Your task to perform on an android device: open app "Google Translate" Image 0: 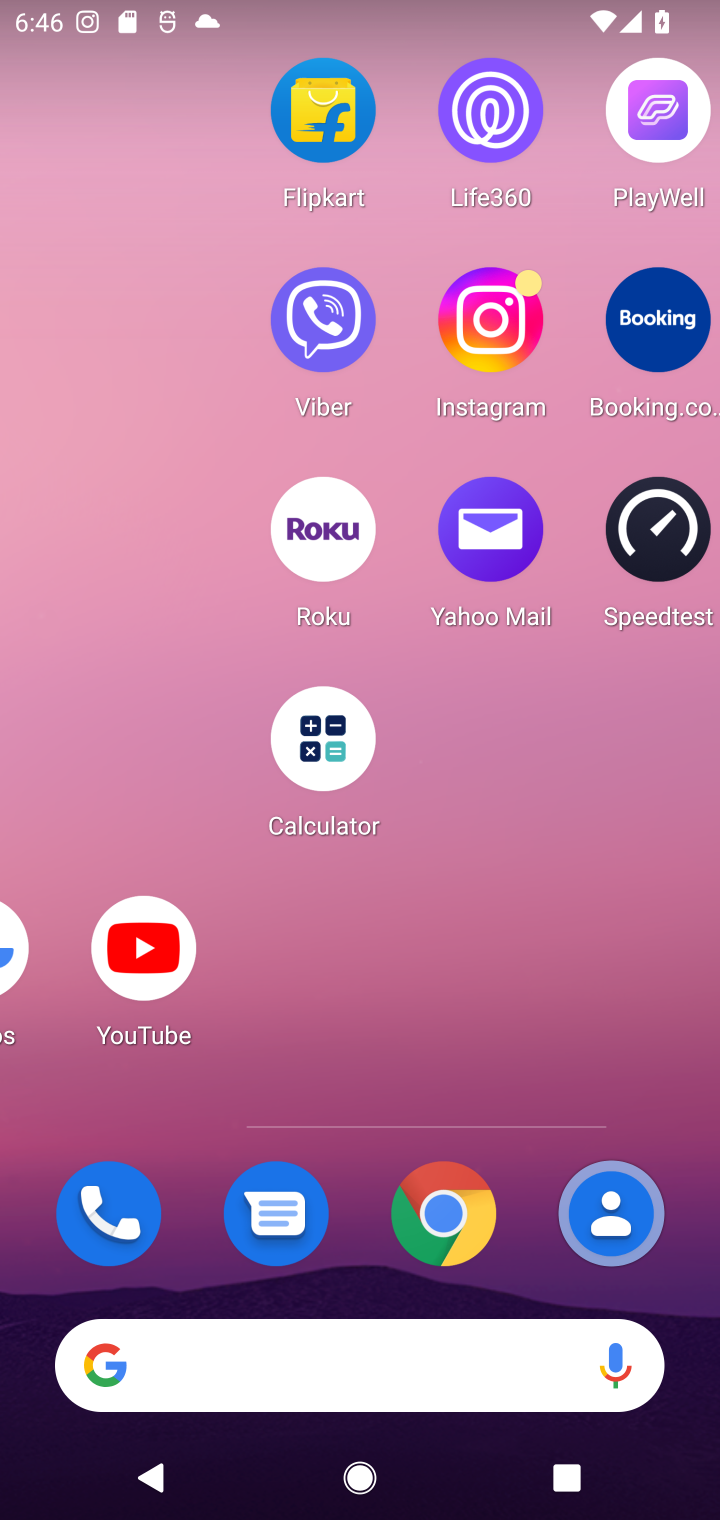
Step 0: press home button
Your task to perform on an android device: open app "Google Translate" Image 1: 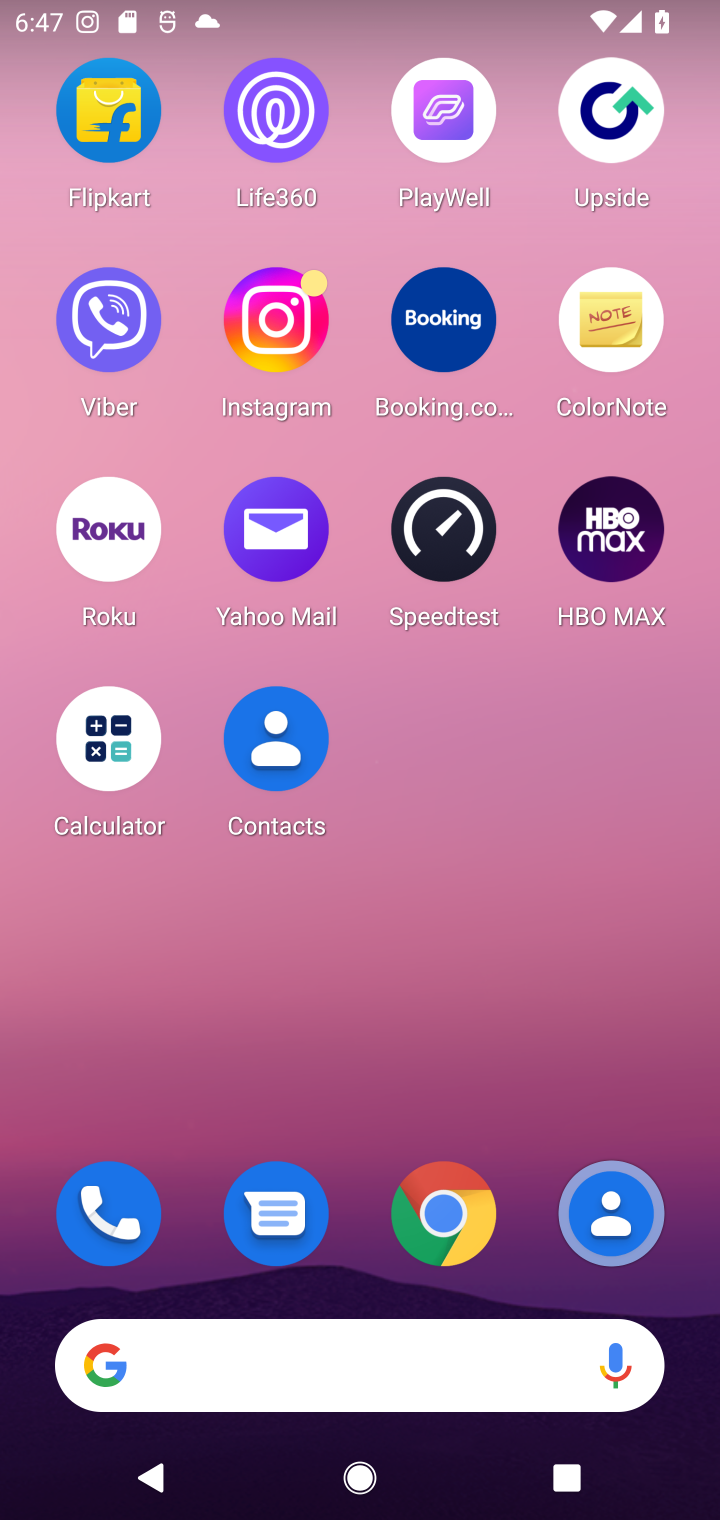
Step 1: drag from (344, 1143) to (342, 7)
Your task to perform on an android device: open app "Google Translate" Image 2: 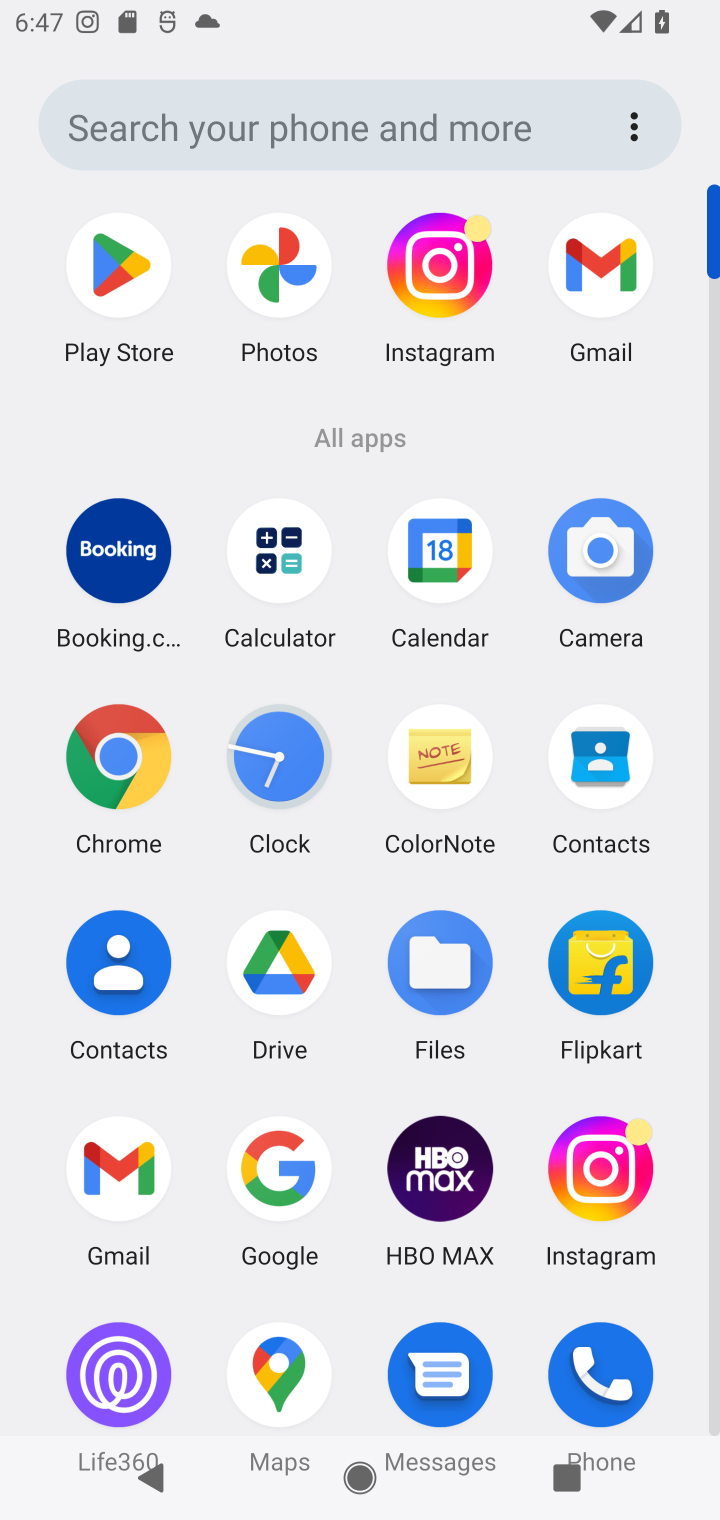
Step 2: drag from (332, 1312) to (408, 323)
Your task to perform on an android device: open app "Google Translate" Image 3: 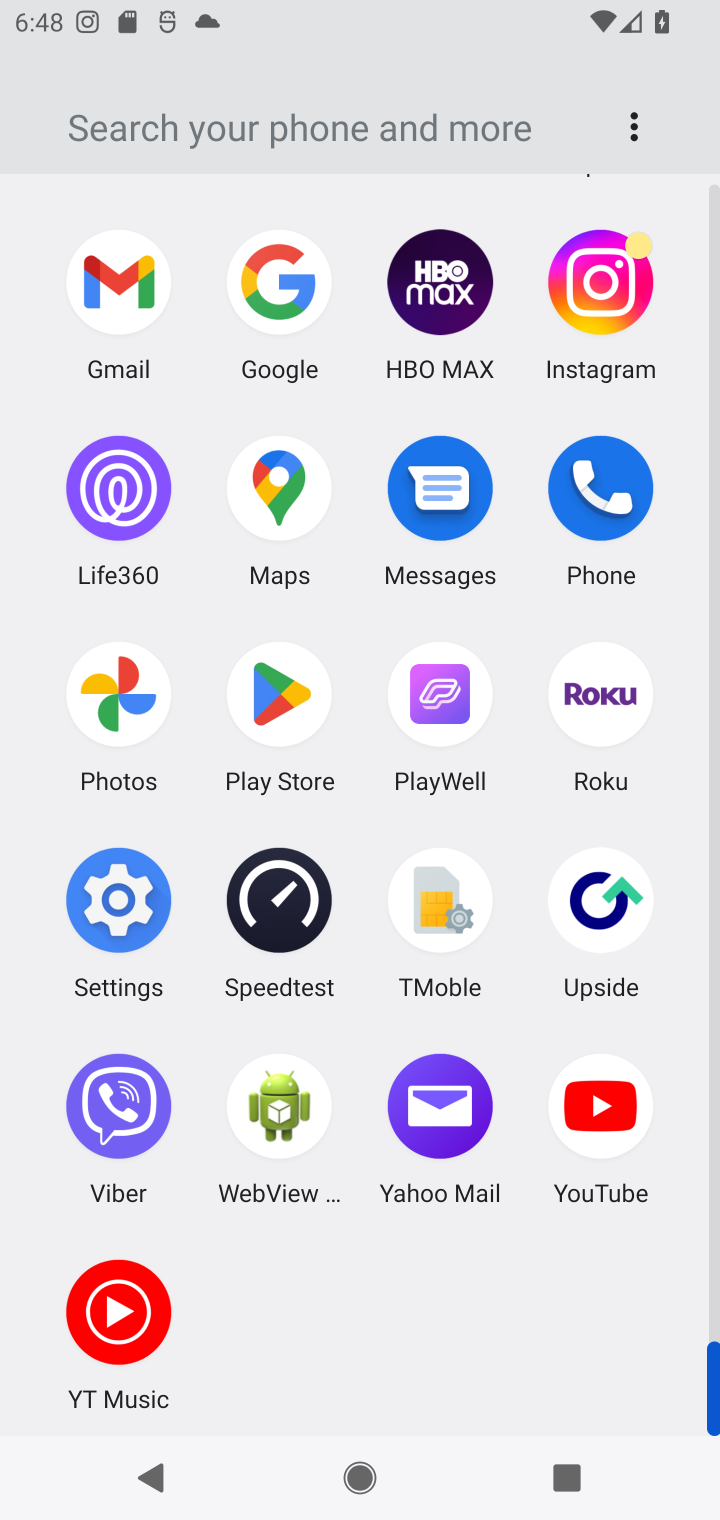
Step 3: click (289, 694)
Your task to perform on an android device: open app "Google Translate" Image 4: 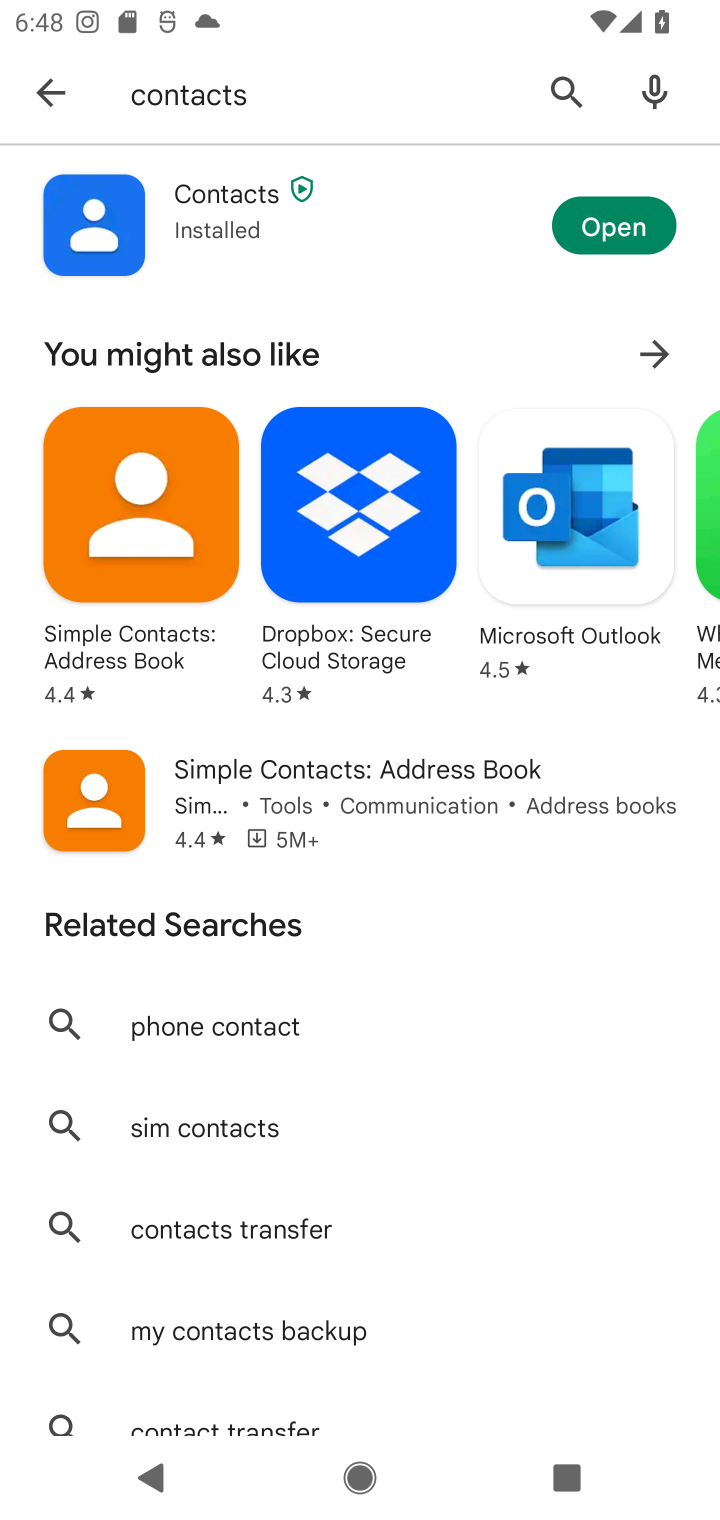
Step 4: click (557, 82)
Your task to perform on an android device: open app "Google Translate" Image 5: 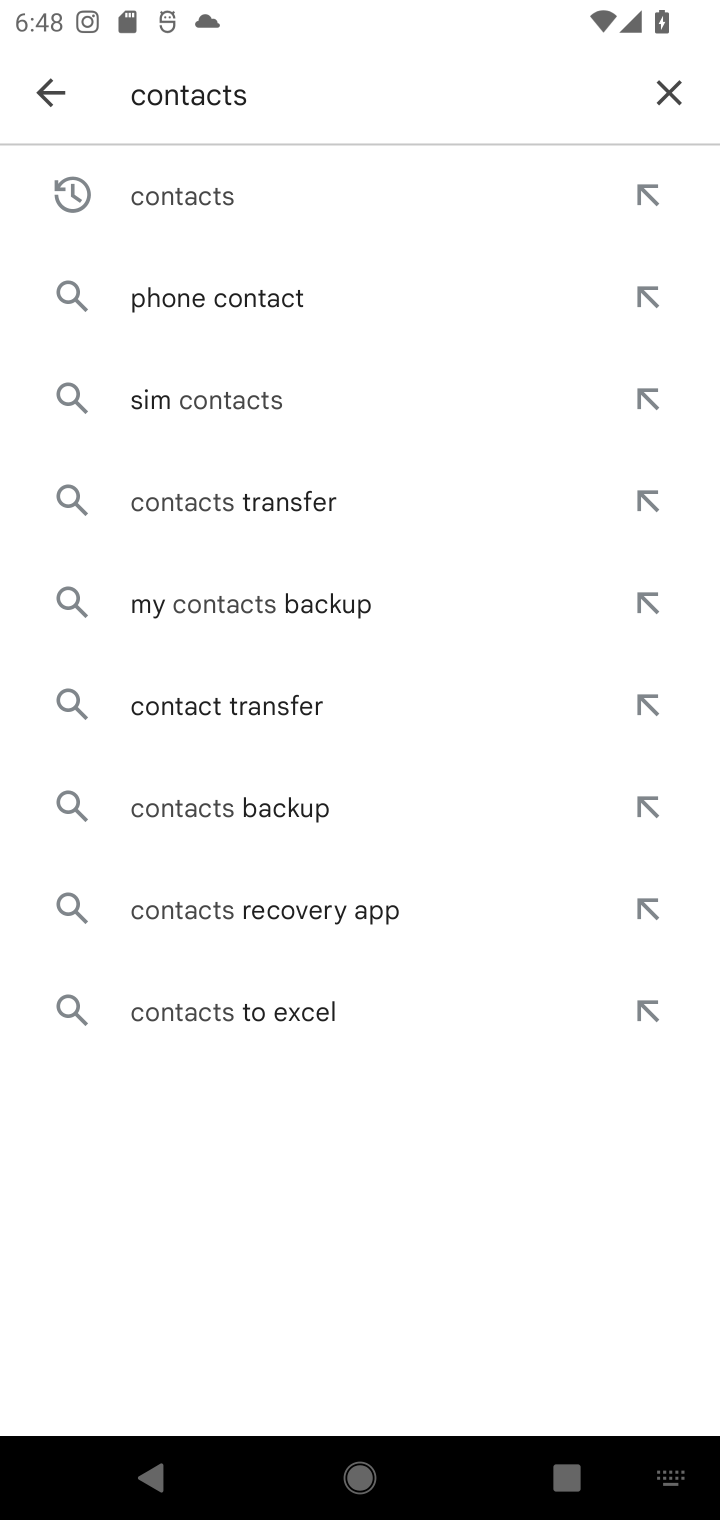
Step 5: click (676, 93)
Your task to perform on an android device: open app "Google Translate" Image 6: 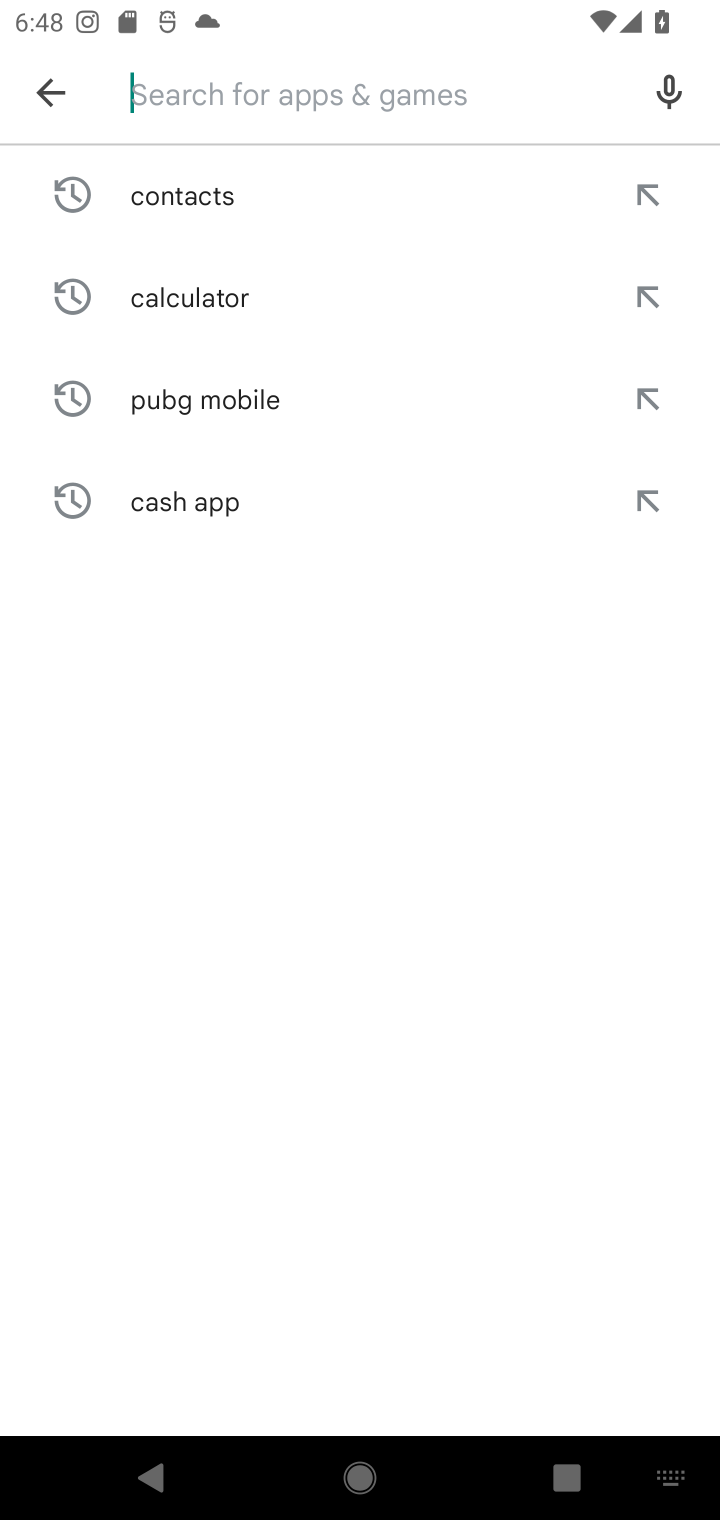
Step 6: type "Google Translate"
Your task to perform on an android device: open app "Google Translate" Image 7: 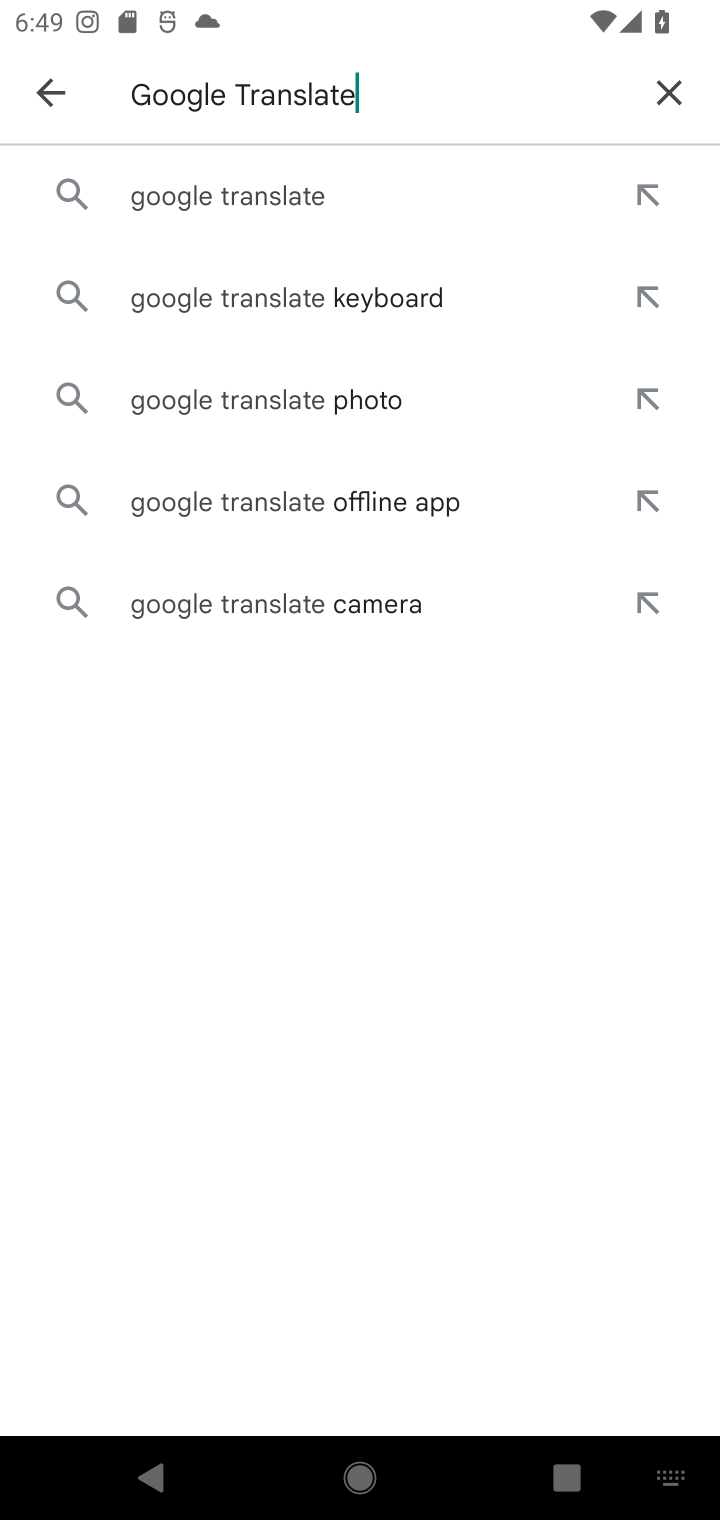
Step 7: click (342, 175)
Your task to perform on an android device: open app "Google Translate" Image 8: 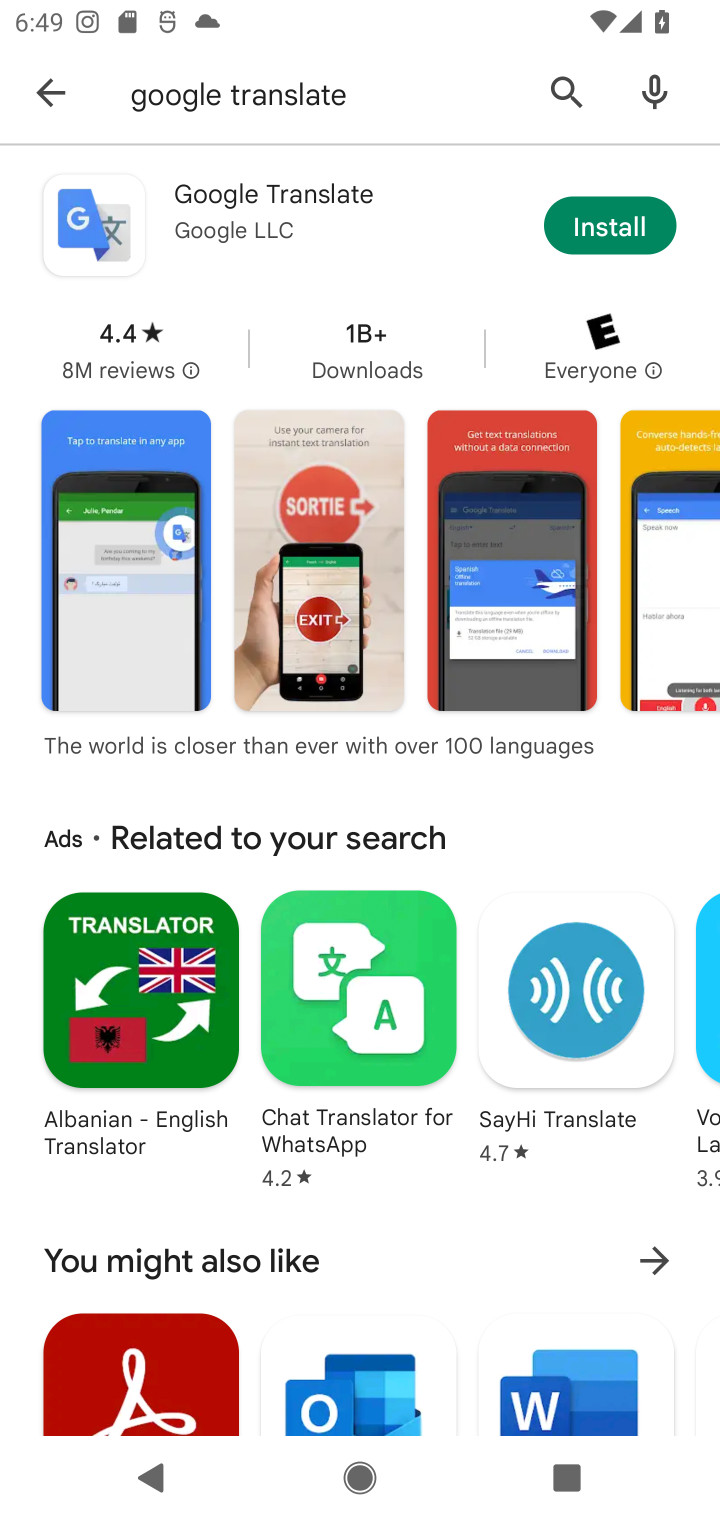
Step 8: task complete